Your task to perform on an android device: Open Google Image 0: 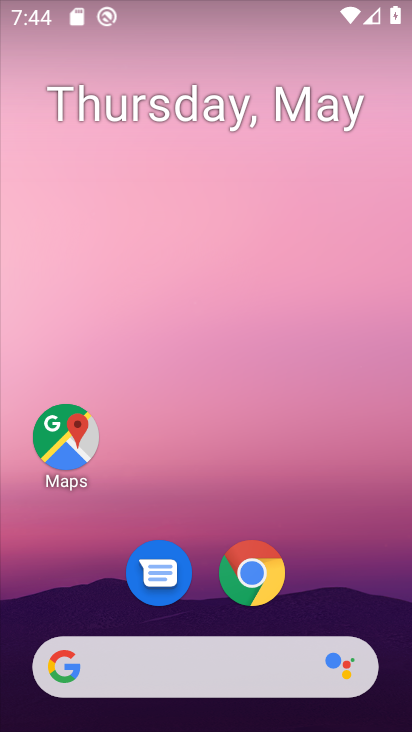
Step 0: click (214, 667)
Your task to perform on an android device: Open Google Image 1: 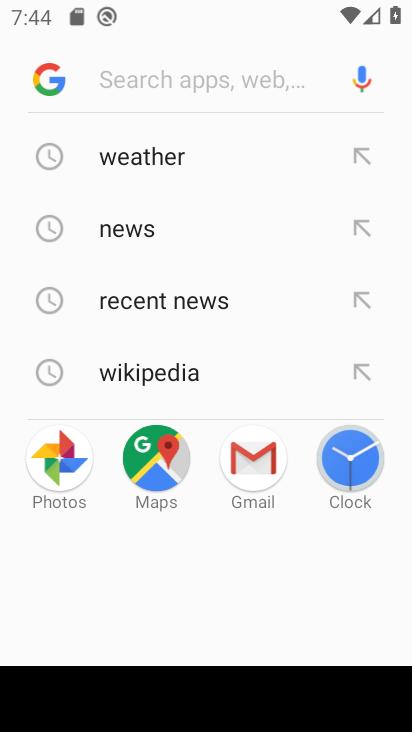
Step 1: task complete